Your task to perform on an android device: set an alarm Image 0: 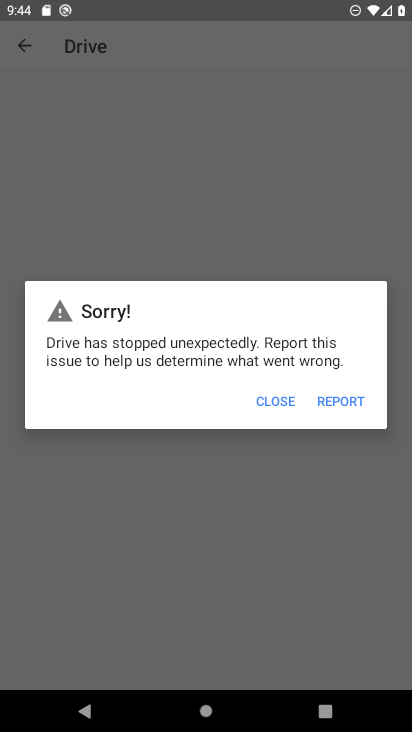
Step 0: press home button
Your task to perform on an android device: set an alarm Image 1: 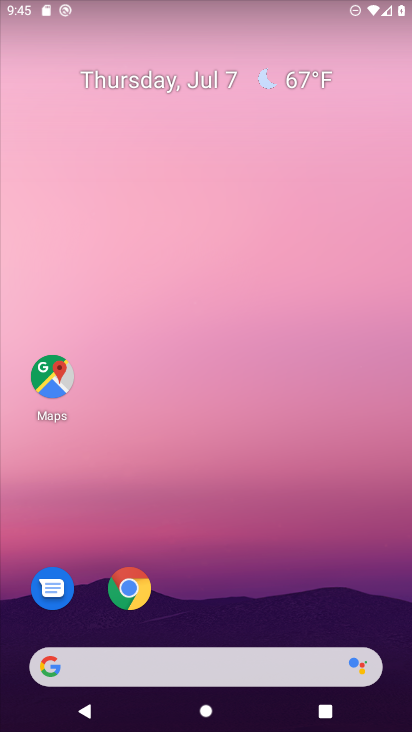
Step 1: drag from (237, 624) to (168, 163)
Your task to perform on an android device: set an alarm Image 2: 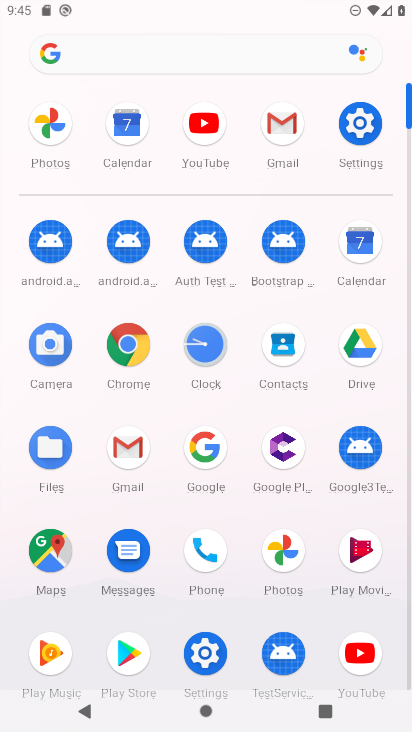
Step 2: click (207, 341)
Your task to perform on an android device: set an alarm Image 3: 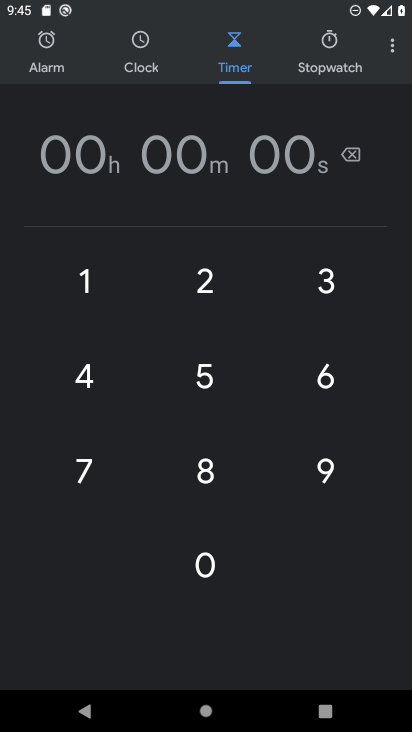
Step 3: click (43, 48)
Your task to perform on an android device: set an alarm Image 4: 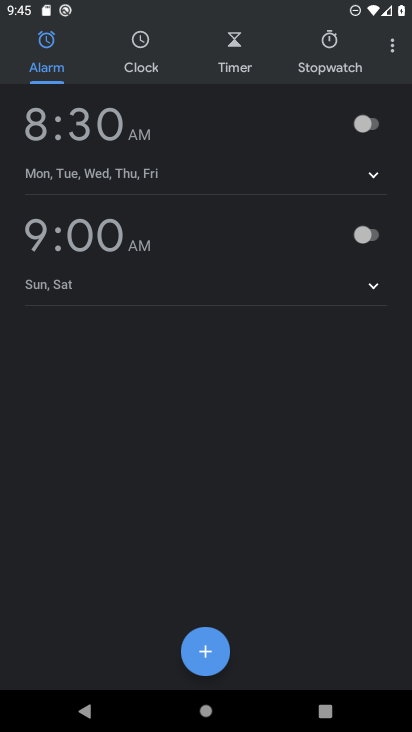
Step 4: click (209, 650)
Your task to perform on an android device: set an alarm Image 5: 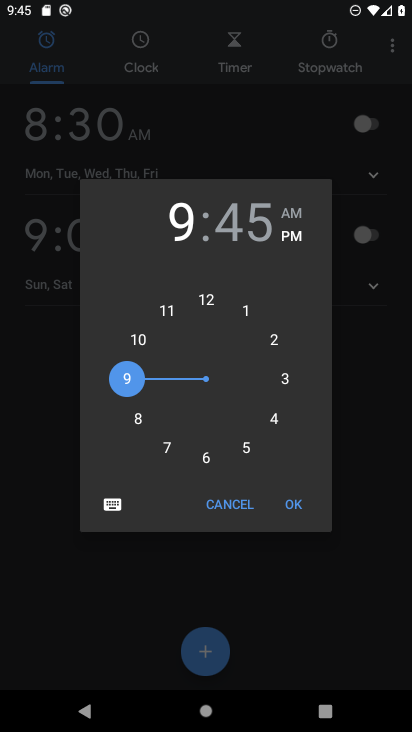
Step 5: click (272, 342)
Your task to perform on an android device: set an alarm Image 6: 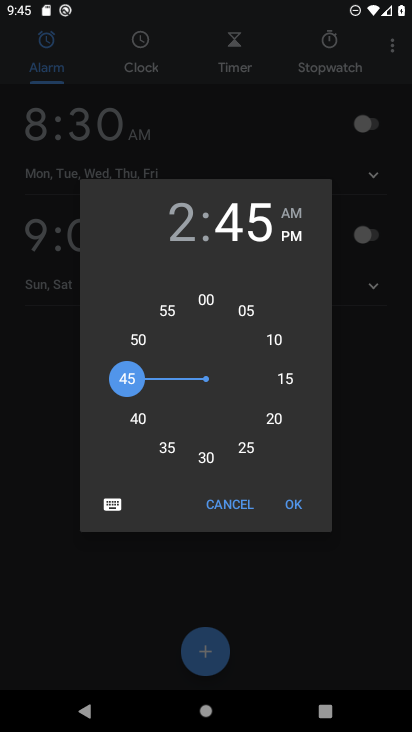
Step 6: click (204, 460)
Your task to perform on an android device: set an alarm Image 7: 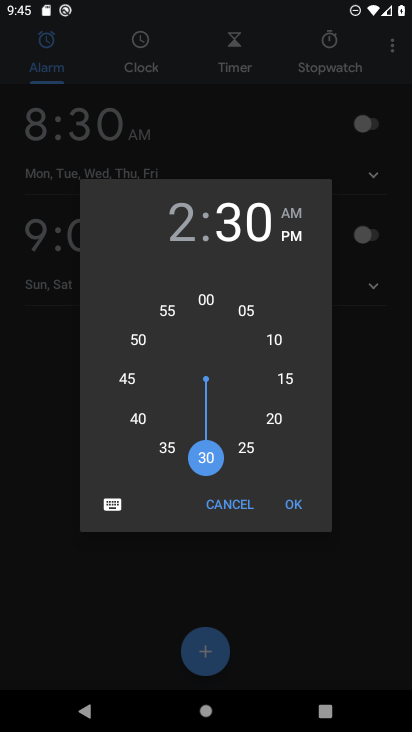
Step 7: click (293, 502)
Your task to perform on an android device: set an alarm Image 8: 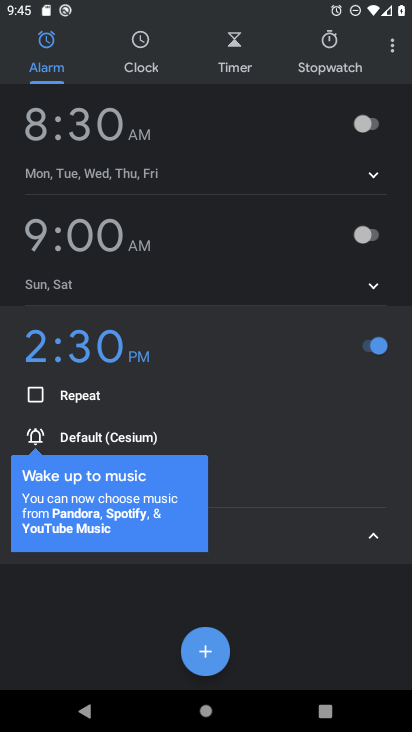
Step 8: click (372, 537)
Your task to perform on an android device: set an alarm Image 9: 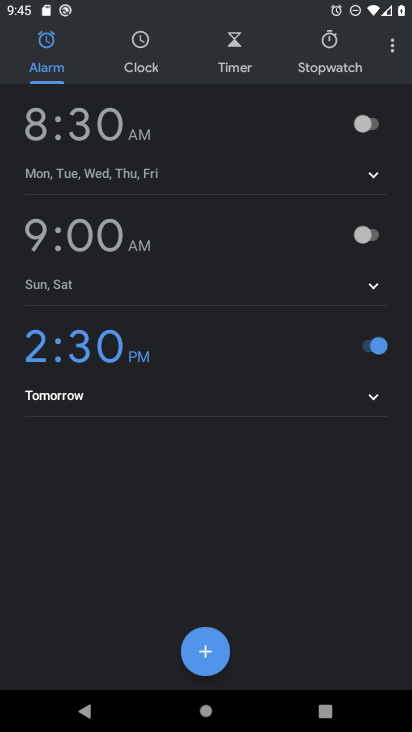
Step 9: task complete